Your task to perform on an android device: turn on wifi Image 0: 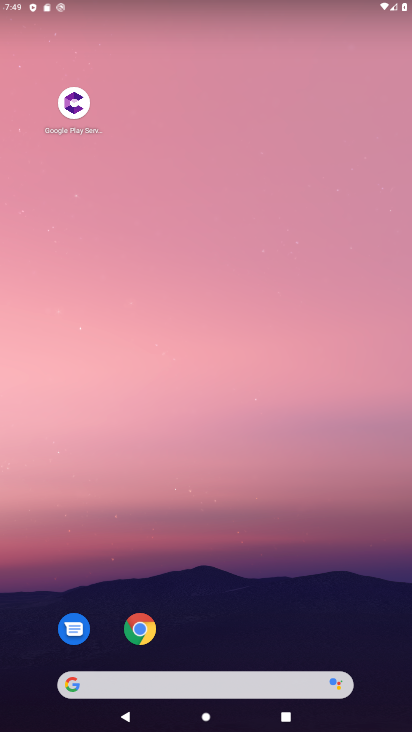
Step 0: press home button
Your task to perform on an android device: turn on wifi Image 1: 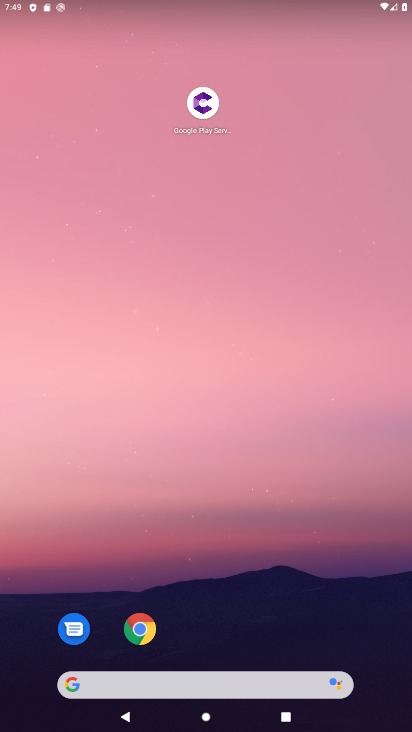
Step 1: drag from (268, 415) to (246, 103)
Your task to perform on an android device: turn on wifi Image 2: 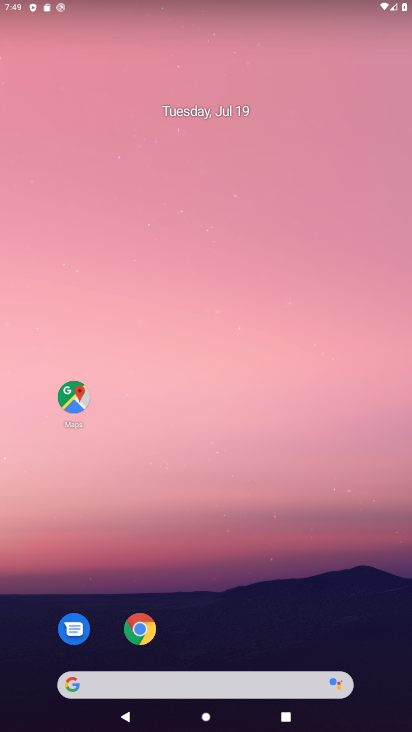
Step 2: drag from (259, 621) to (179, 89)
Your task to perform on an android device: turn on wifi Image 3: 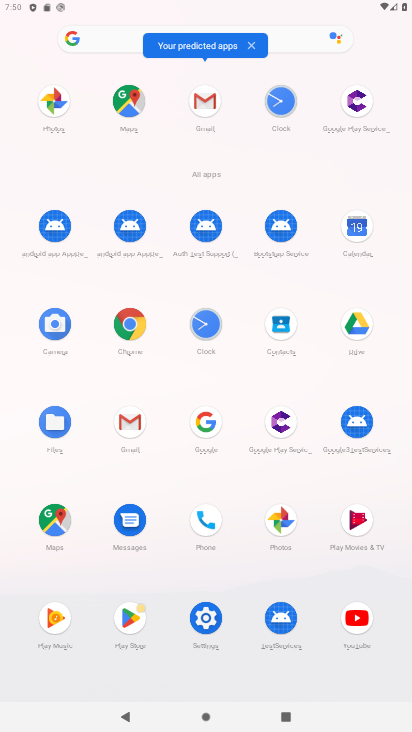
Step 3: click (211, 618)
Your task to perform on an android device: turn on wifi Image 4: 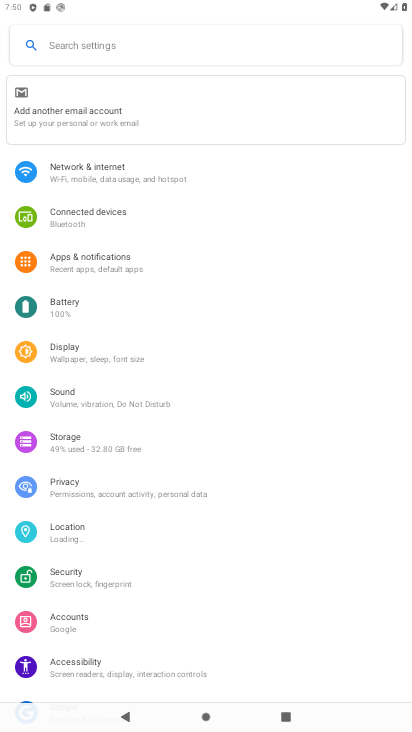
Step 4: click (108, 175)
Your task to perform on an android device: turn on wifi Image 5: 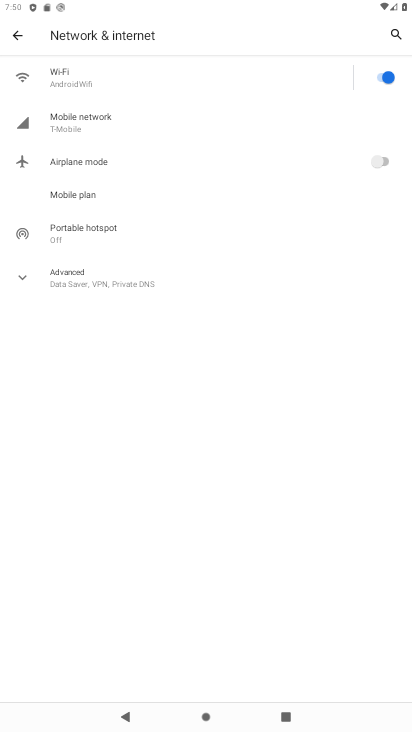
Step 5: task complete